Your task to perform on an android device: What's on my calendar today? Image 0: 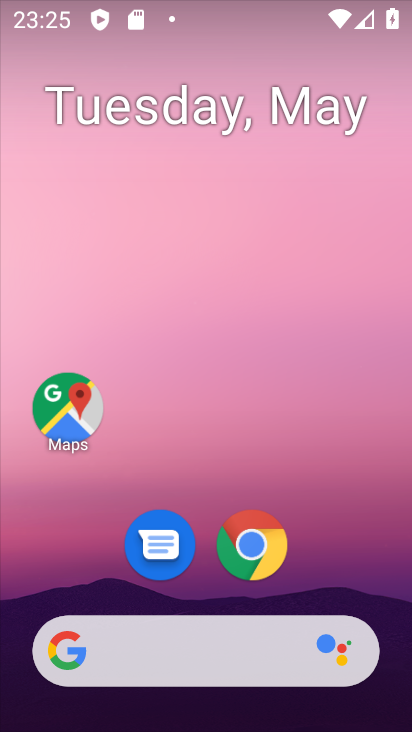
Step 0: drag from (205, 585) to (245, 263)
Your task to perform on an android device: What's on my calendar today? Image 1: 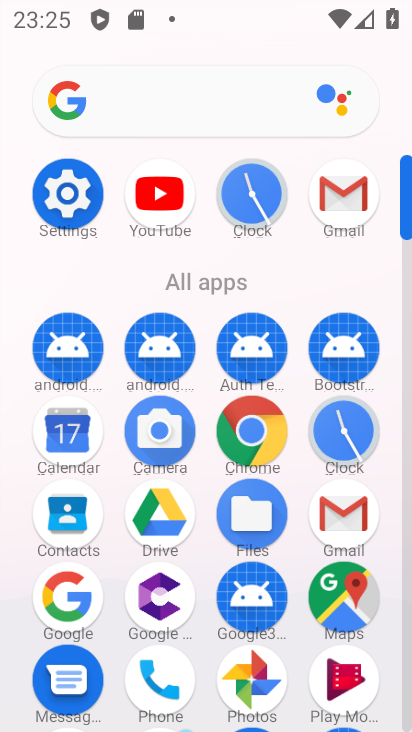
Step 1: click (71, 438)
Your task to perform on an android device: What's on my calendar today? Image 2: 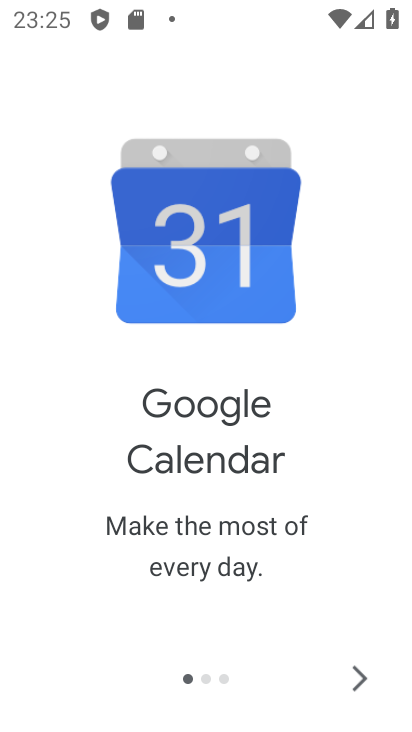
Step 2: click (360, 676)
Your task to perform on an android device: What's on my calendar today? Image 3: 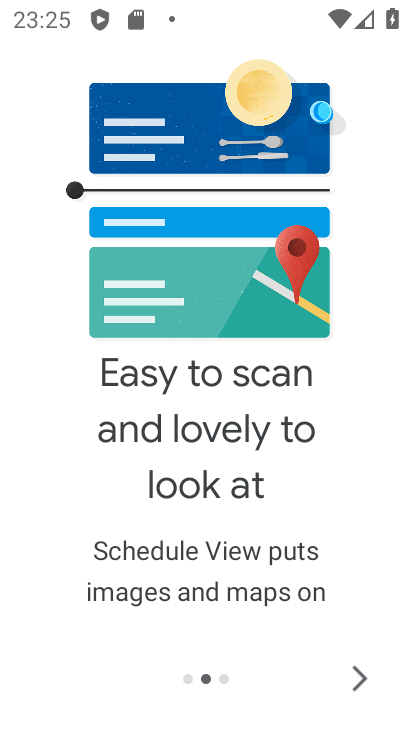
Step 3: click (361, 675)
Your task to perform on an android device: What's on my calendar today? Image 4: 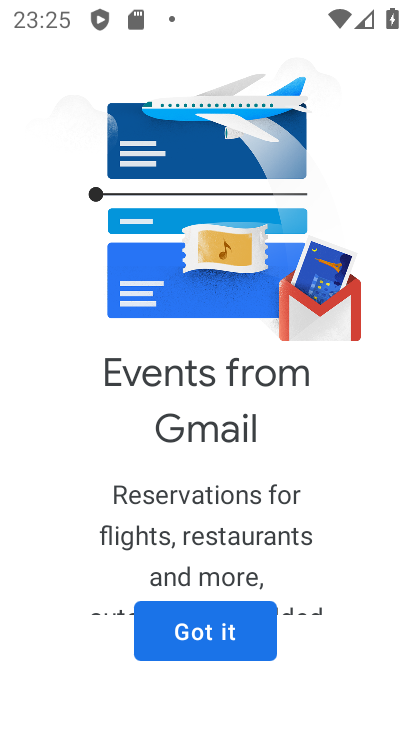
Step 4: click (187, 635)
Your task to perform on an android device: What's on my calendar today? Image 5: 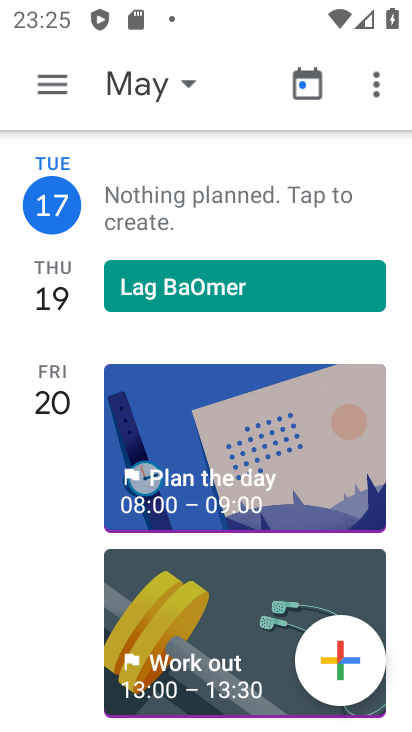
Step 5: click (180, 85)
Your task to perform on an android device: What's on my calendar today? Image 6: 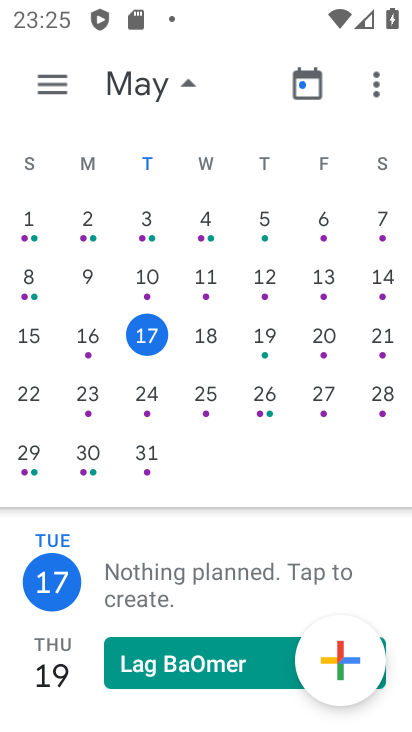
Step 6: click (194, 345)
Your task to perform on an android device: What's on my calendar today? Image 7: 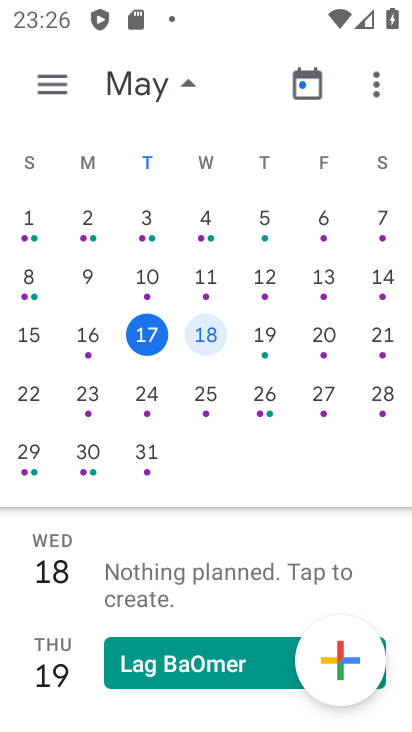
Step 7: task complete